Your task to perform on an android device: allow cookies in the chrome app Image 0: 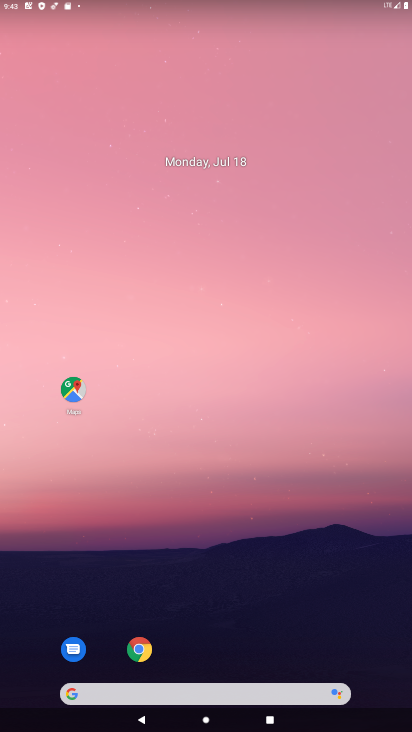
Step 0: click (145, 648)
Your task to perform on an android device: allow cookies in the chrome app Image 1: 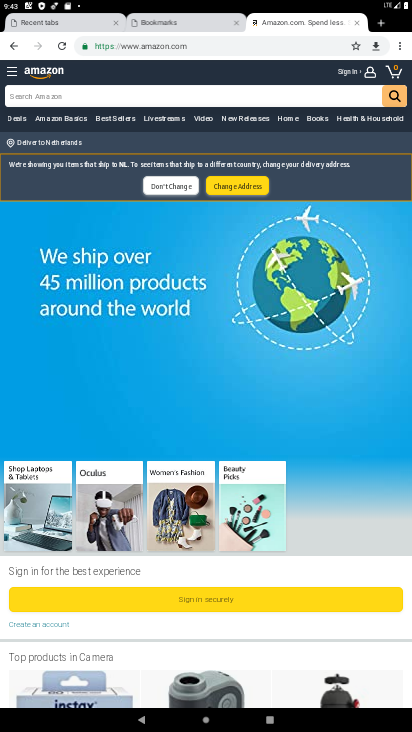
Step 1: click (397, 40)
Your task to perform on an android device: allow cookies in the chrome app Image 2: 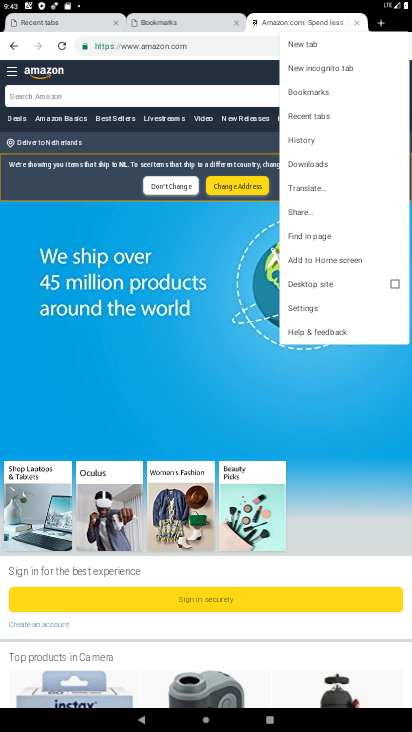
Step 2: click (311, 310)
Your task to perform on an android device: allow cookies in the chrome app Image 3: 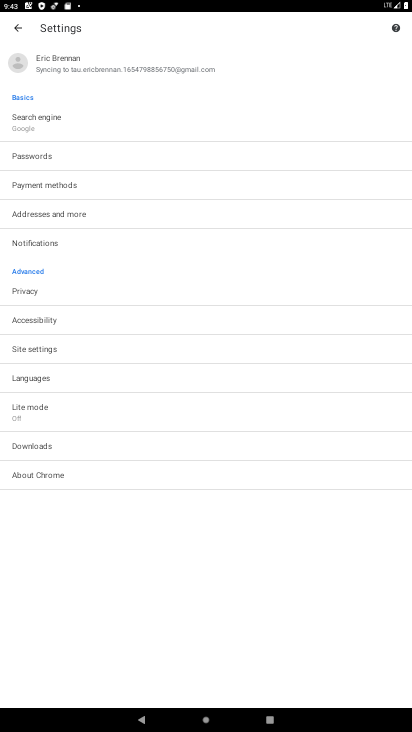
Step 3: click (65, 349)
Your task to perform on an android device: allow cookies in the chrome app Image 4: 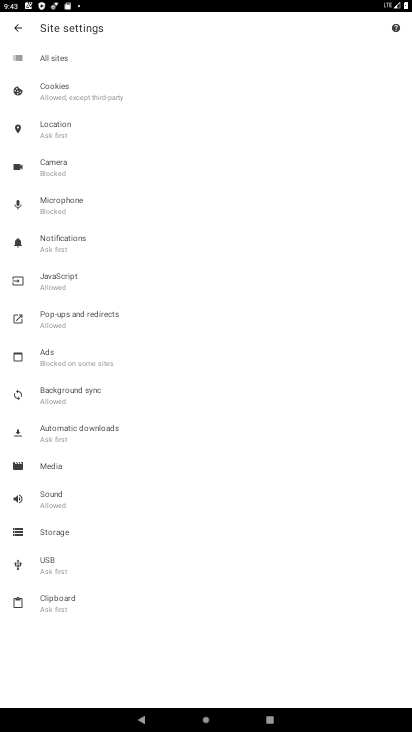
Step 4: click (170, 94)
Your task to perform on an android device: allow cookies in the chrome app Image 5: 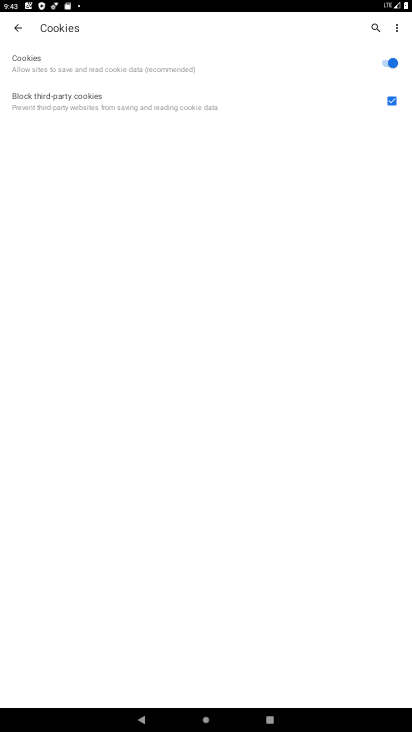
Step 5: task complete